Your task to perform on an android device: install app "Google Photos" Image 0: 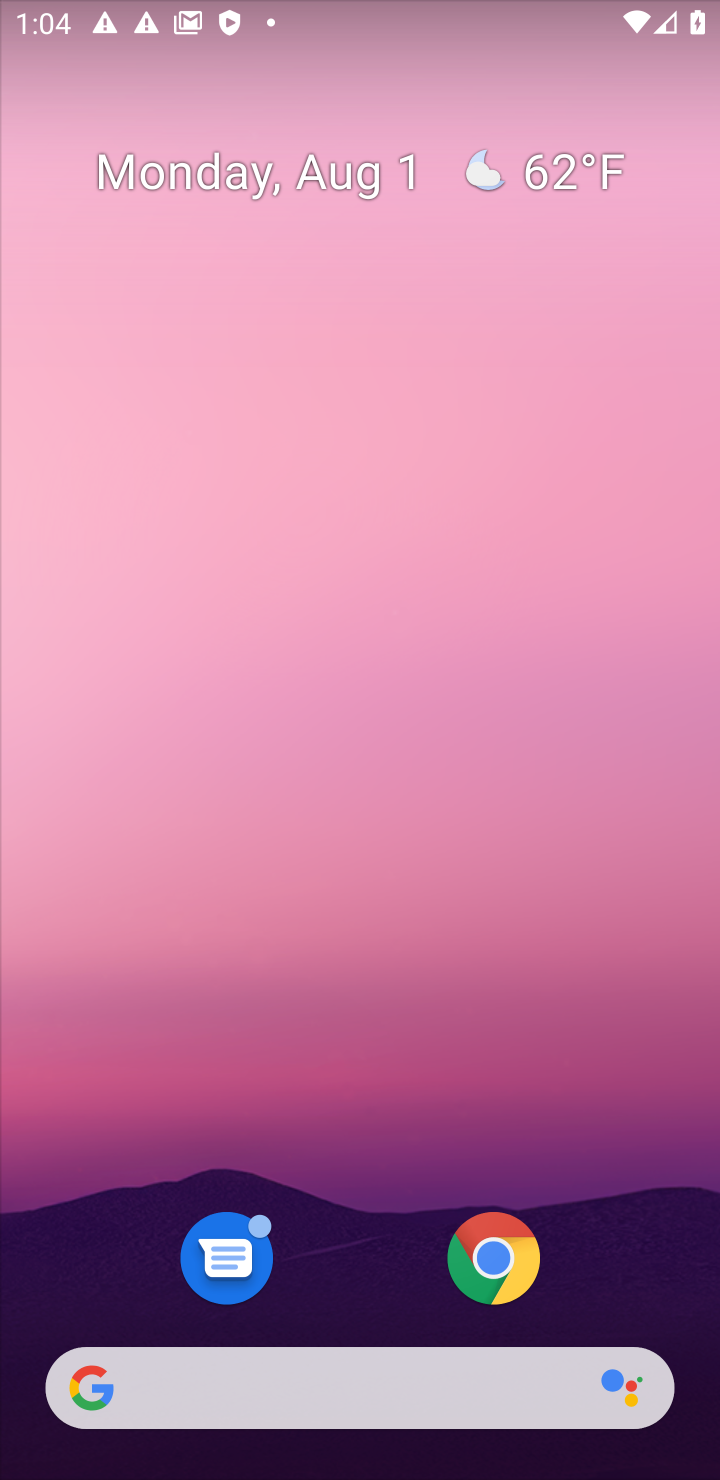
Step 0: drag from (381, 1102) to (372, 18)
Your task to perform on an android device: install app "Google Photos" Image 1: 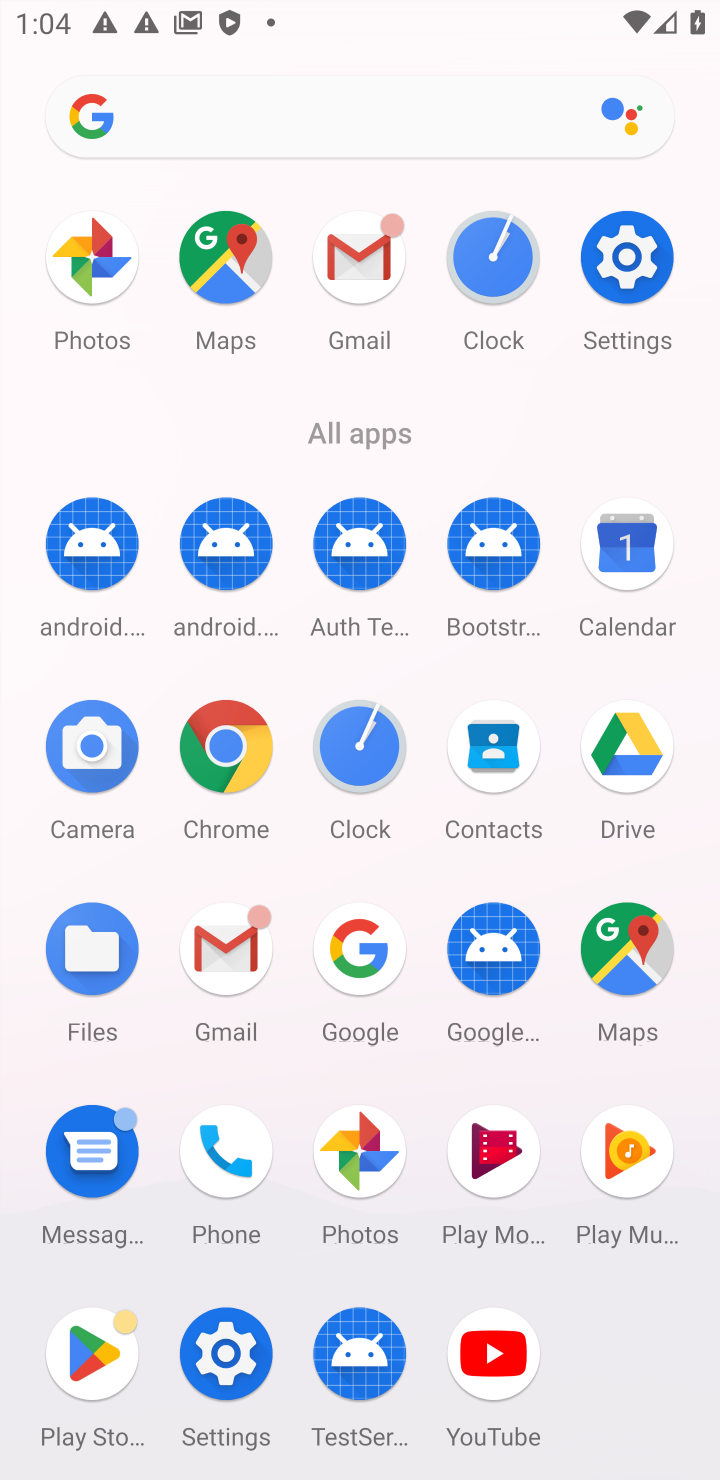
Step 1: click (348, 1158)
Your task to perform on an android device: install app "Google Photos" Image 2: 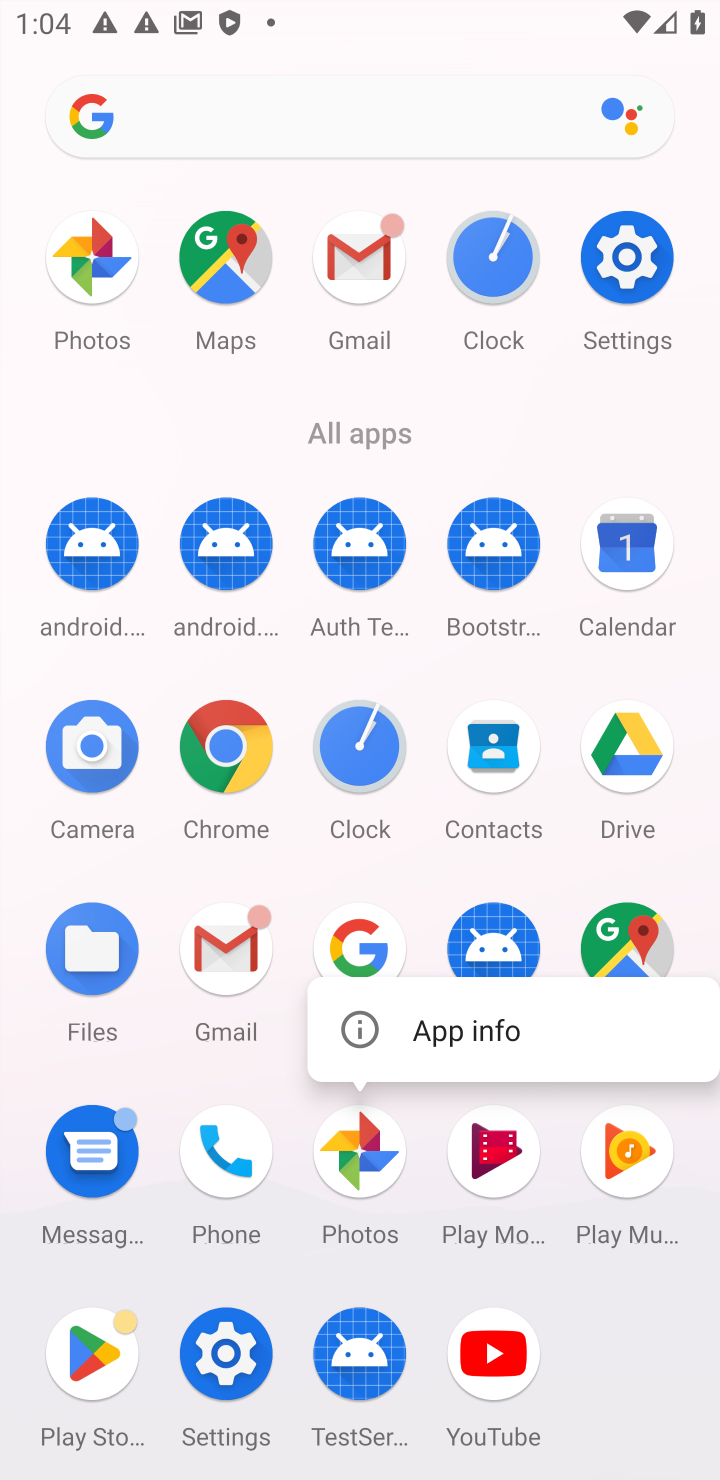
Step 2: click (378, 1153)
Your task to perform on an android device: install app "Google Photos" Image 3: 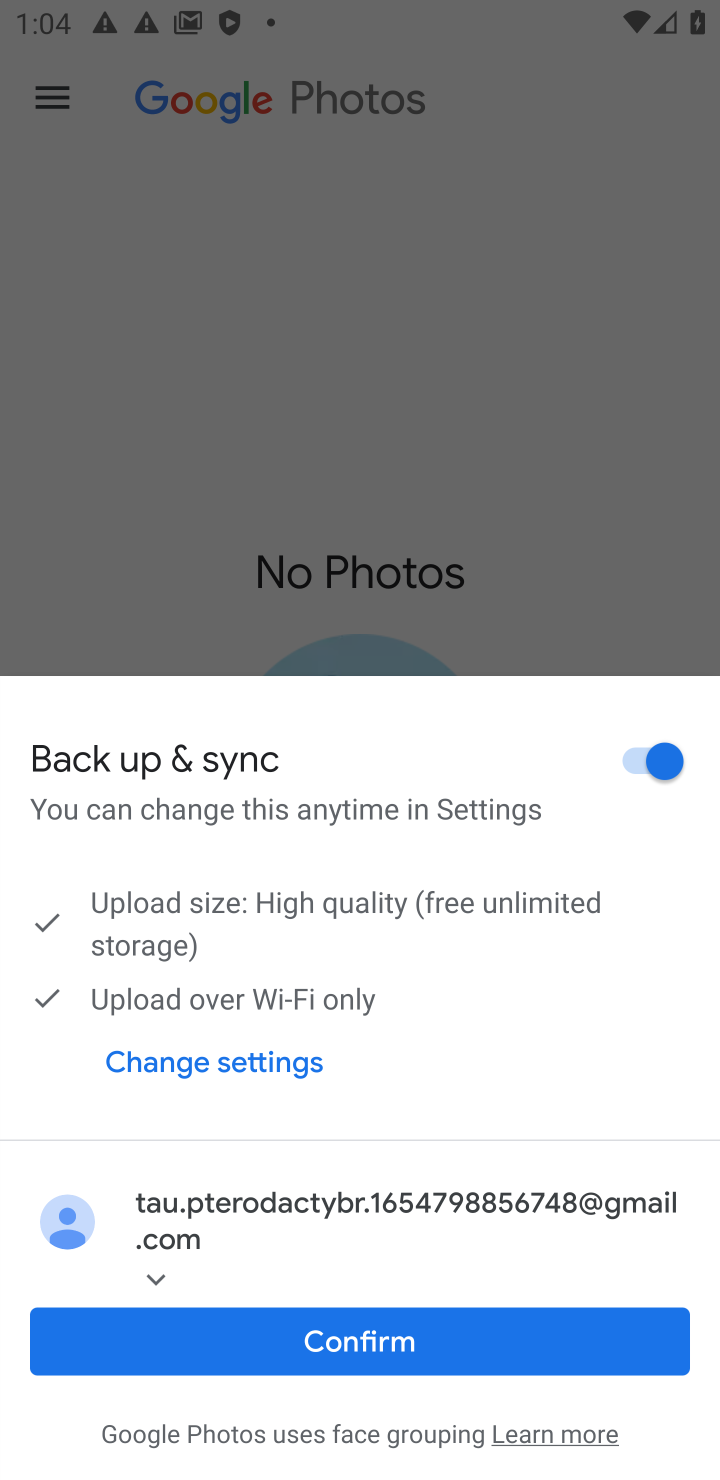
Step 3: task complete